Your task to perform on an android device: Go to sound settings Image 0: 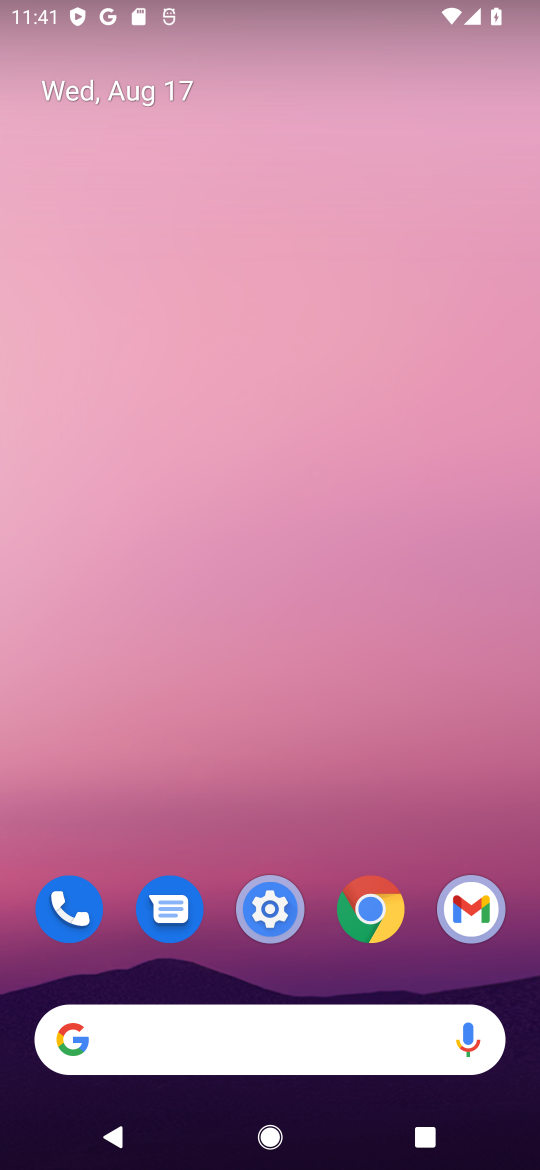
Step 0: click (274, 904)
Your task to perform on an android device: Go to sound settings Image 1: 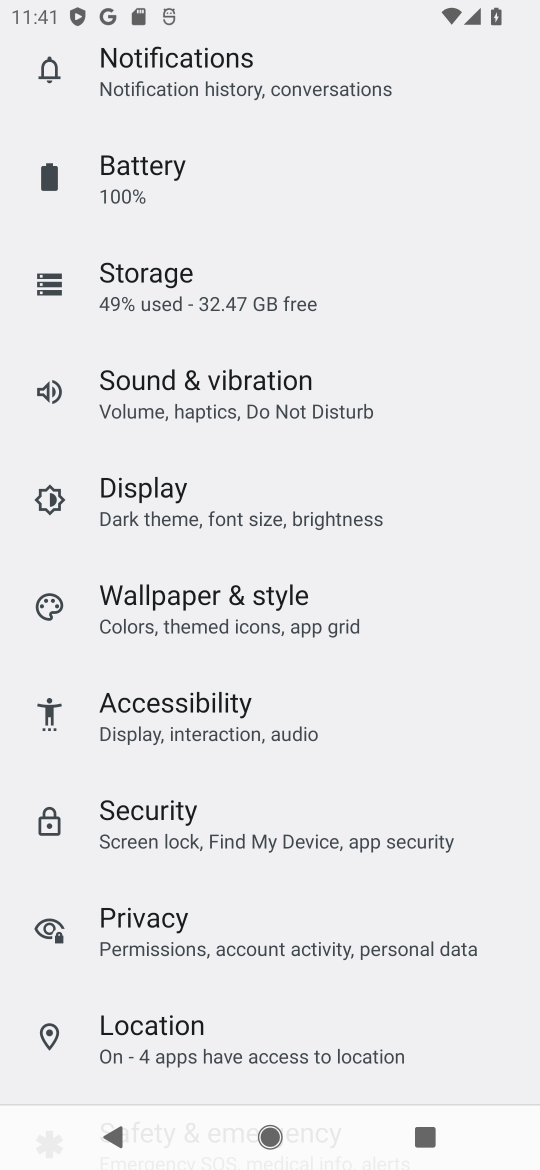
Step 1: click (164, 377)
Your task to perform on an android device: Go to sound settings Image 2: 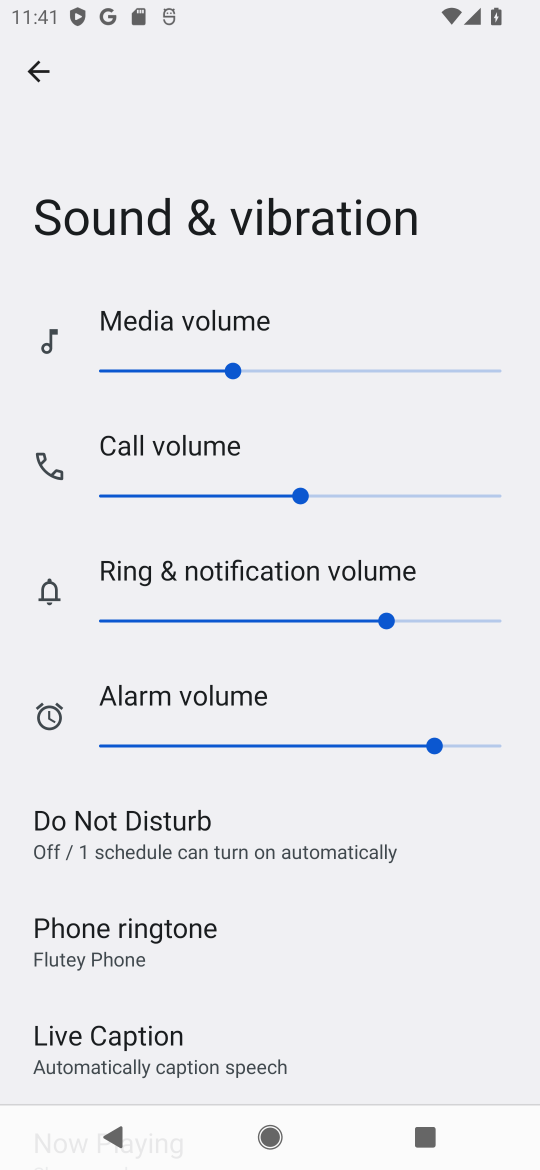
Step 2: task complete